Your task to perform on an android device: see tabs open on other devices in the chrome app Image 0: 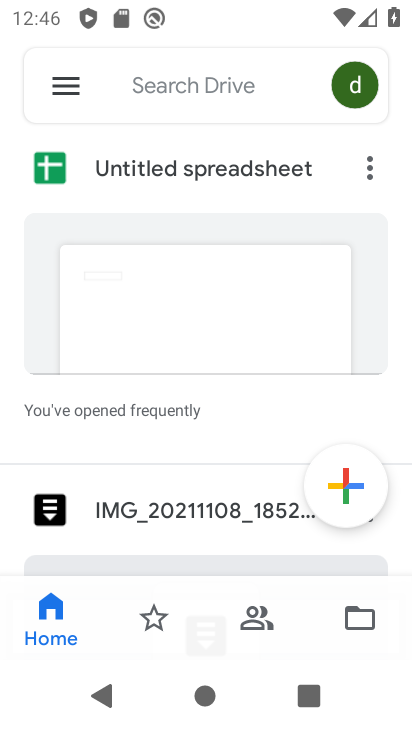
Step 0: press home button
Your task to perform on an android device: see tabs open on other devices in the chrome app Image 1: 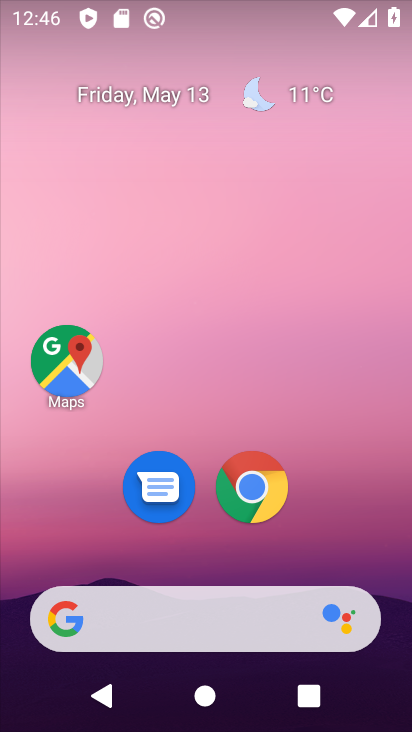
Step 1: click (273, 497)
Your task to perform on an android device: see tabs open on other devices in the chrome app Image 2: 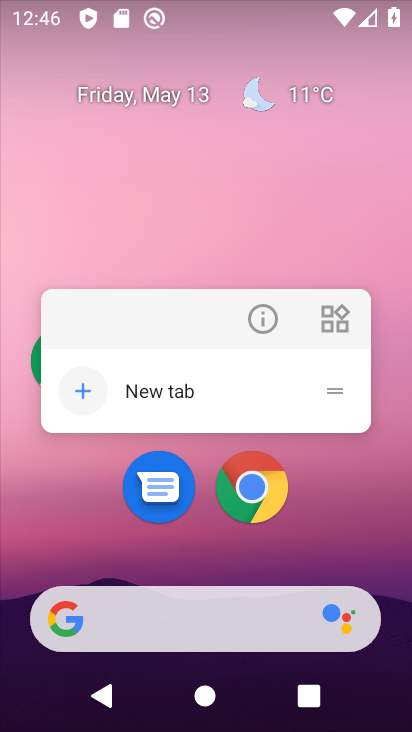
Step 2: click (255, 512)
Your task to perform on an android device: see tabs open on other devices in the chrome app Image 3: 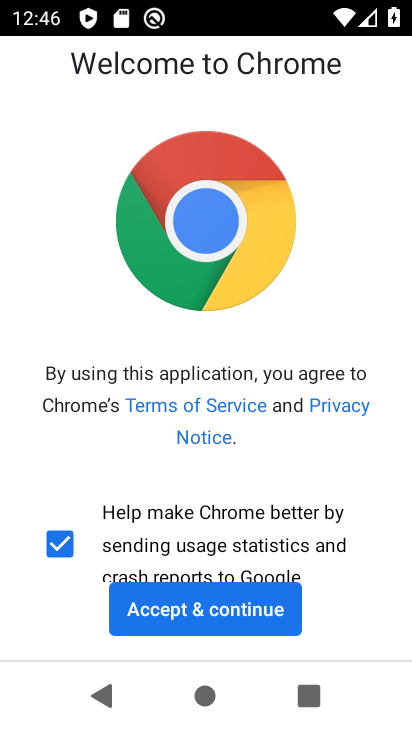
Step 3: click (216, 622)
Your task to perform on an android device: see tabs open on other devices in the chrome app Image 4: 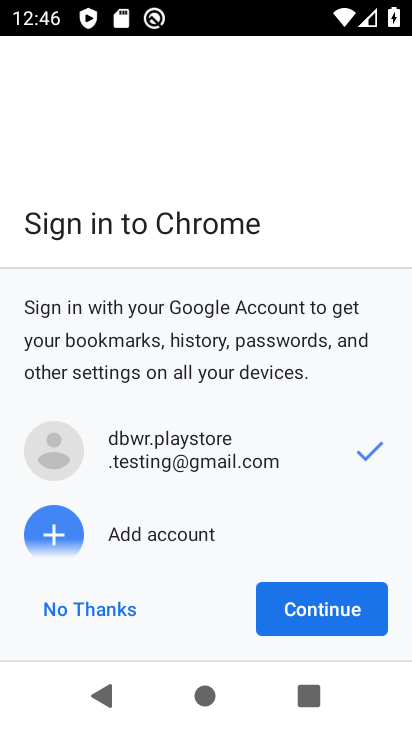
Step 4: click (307, 604)
Your task to perform on an android device: see tabs open on other devices in the chrome app Image 5: 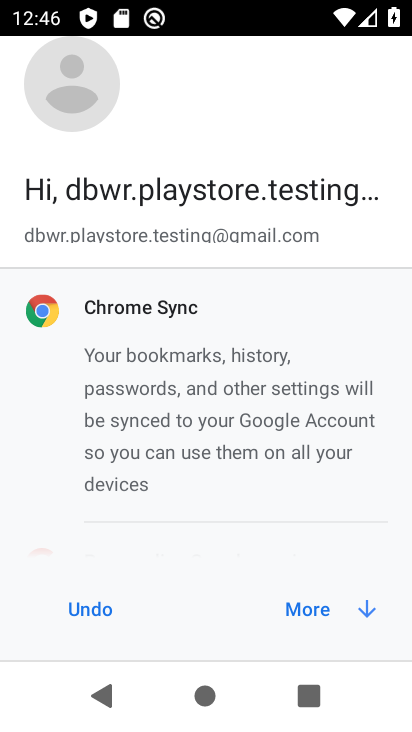
Step 5: click (334, 613)
Your task to perform on an android device: see tabs open on other devices in the chrome app Image 6: 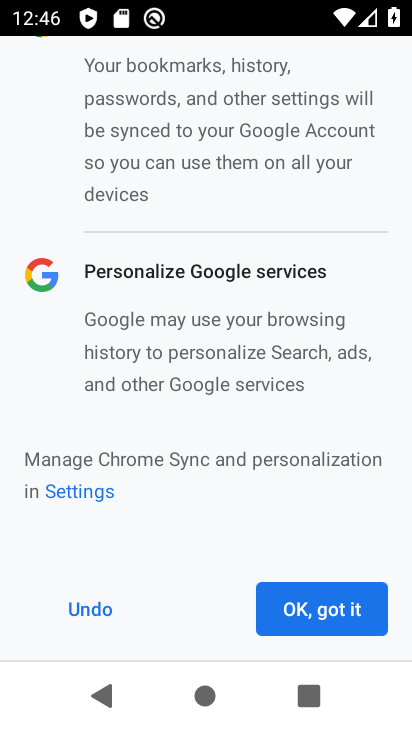
Step 6: click (327, 629)
Your task to perform on an android device: see tabs open on other devices in the chrome app Image 7: 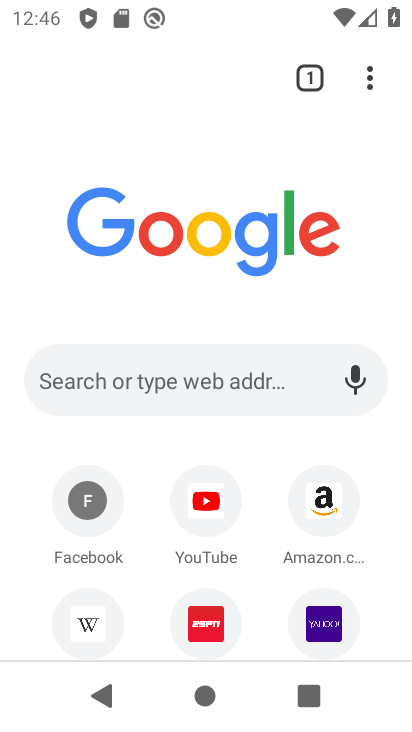
Step 7: drag from (371, 90) to (165, 364)
Your task to perform on an android device: see tabs open on other devices in the chrome app Image 8: 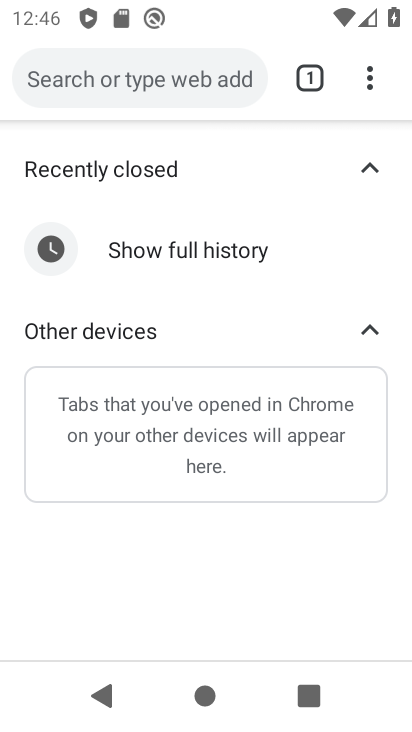
Step 8: click (155, 266)
Your task to perform on an android device: see tabs open on other devices in the chrome app Image 9: 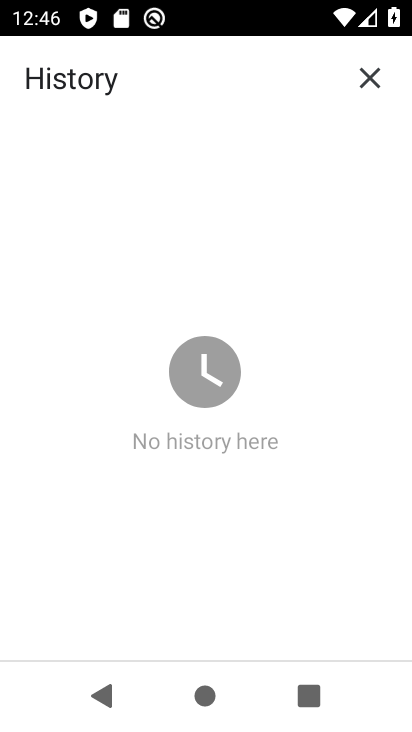
Step 9: task complete